Your task to perform on an android device: turn off location Image 0: 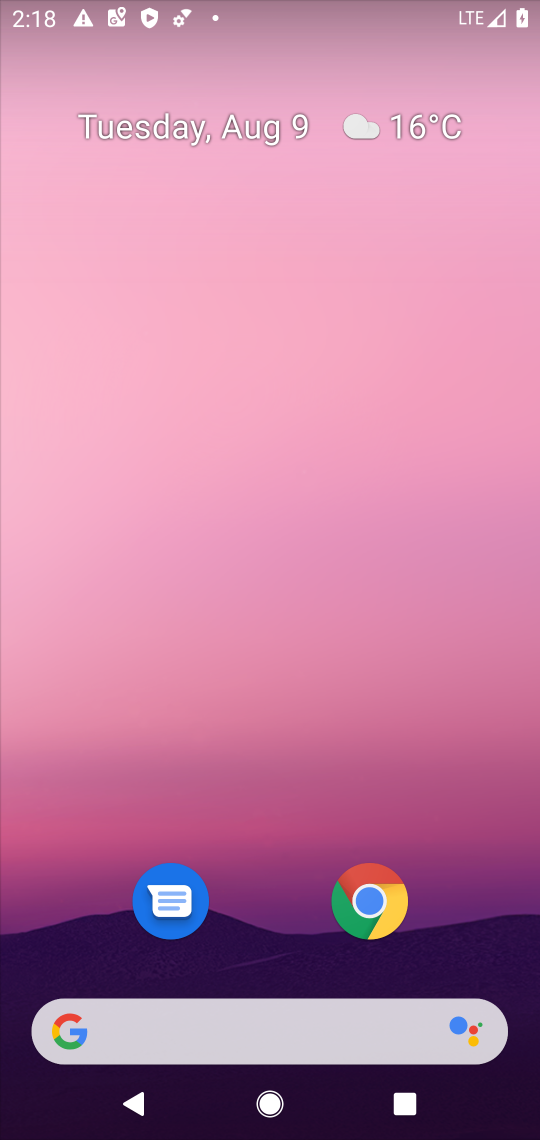
Step 0: drag from (494, 946) to (431, 197)
Your task to perform on an android device: turn off location Image 1: 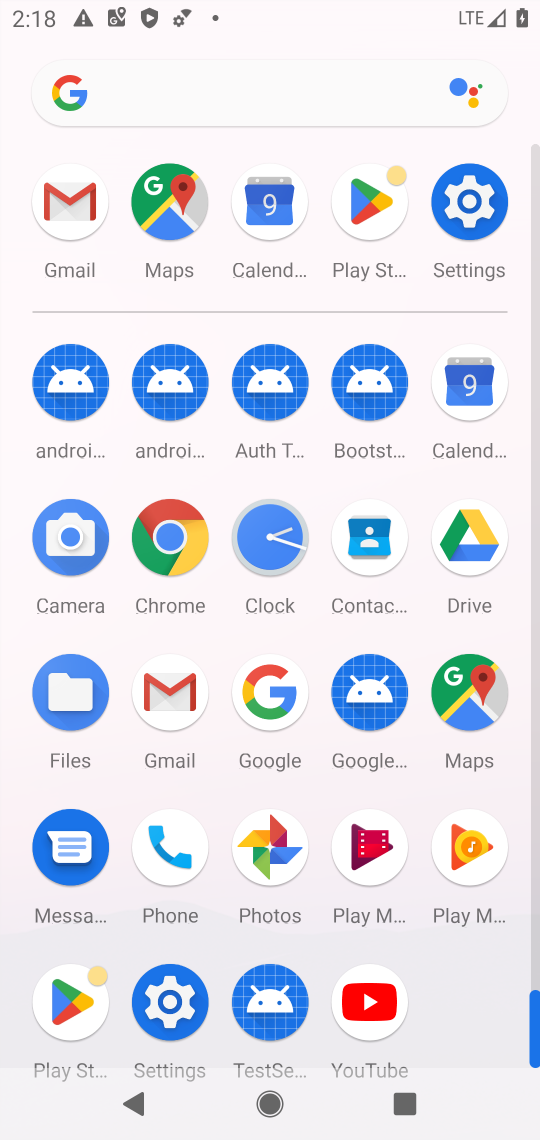
Step 1: click (171, 1000)
Your task to perform on an android device: turn off location Image 2: 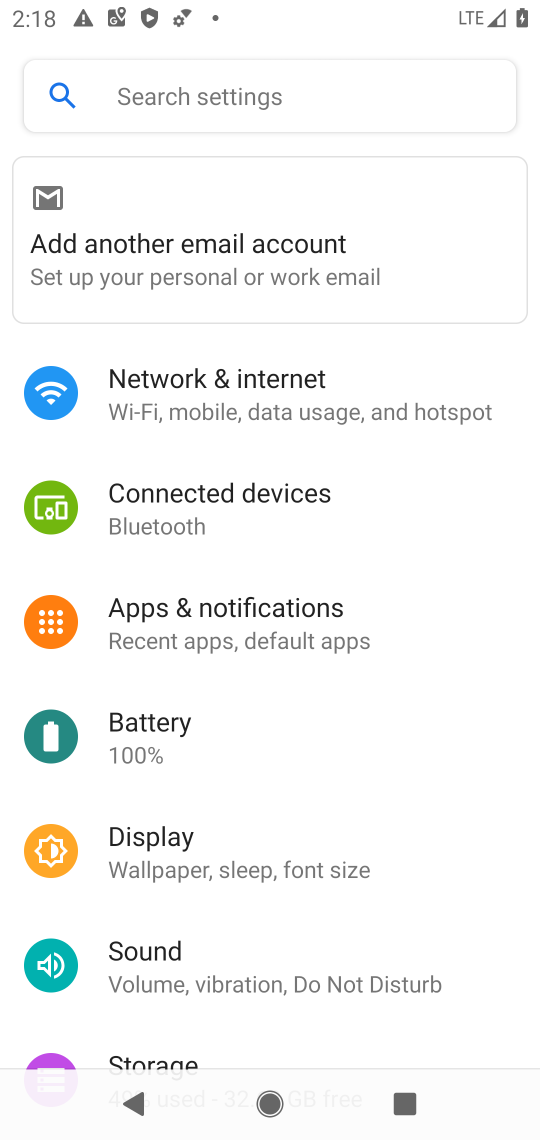
Step 2: drag from (428, 922) to (386, 375)
Your task to perform on an android device: turn off location Image 3: 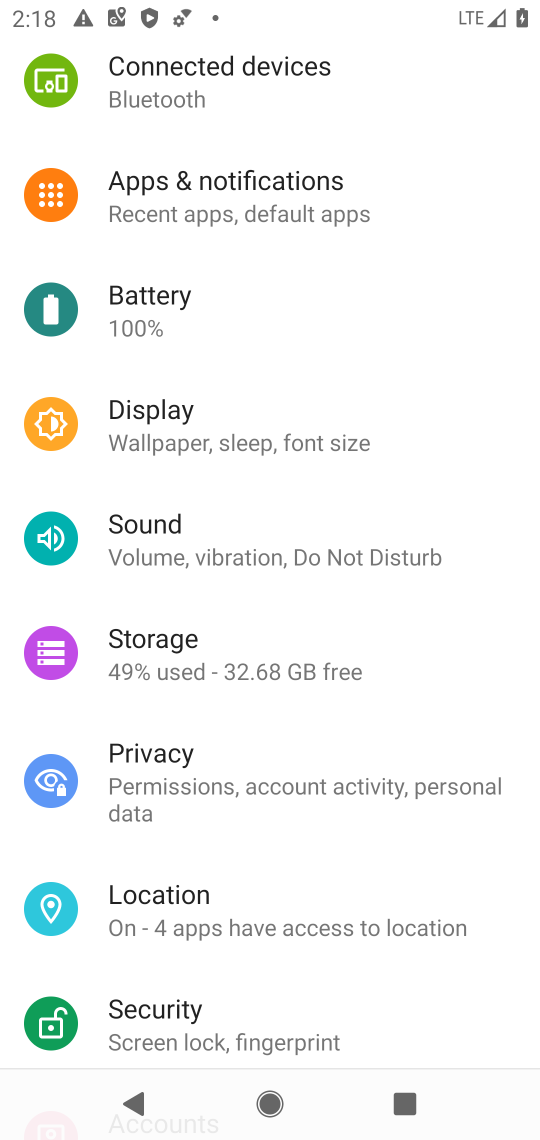
Step 3: click (165, 900)
Your task to perform on an android device: turn off location Image 4: 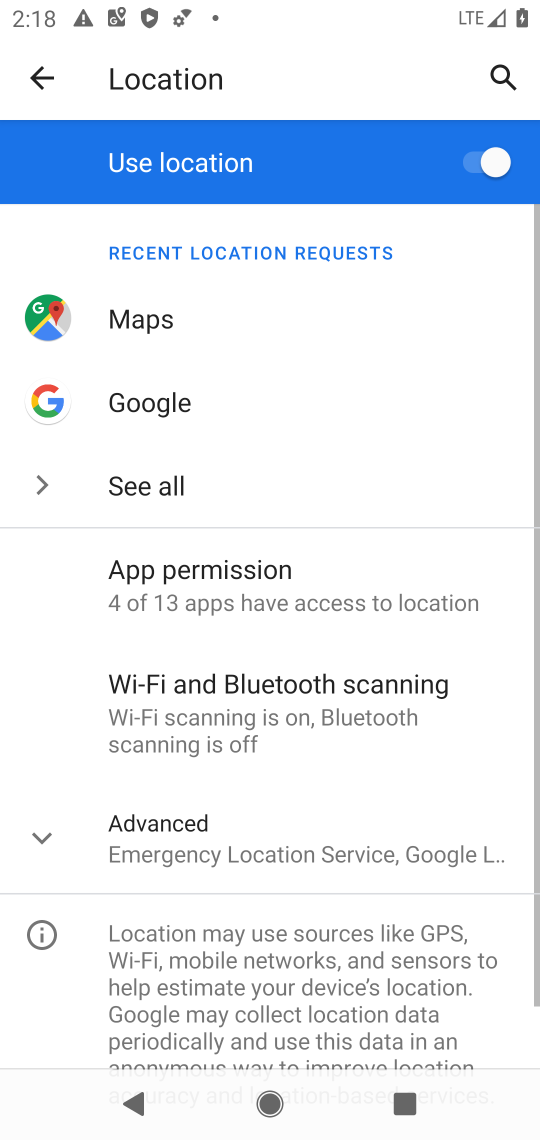
Step 4: click (471, 162)
Your task to perform on an android device: turn off location Image 5: 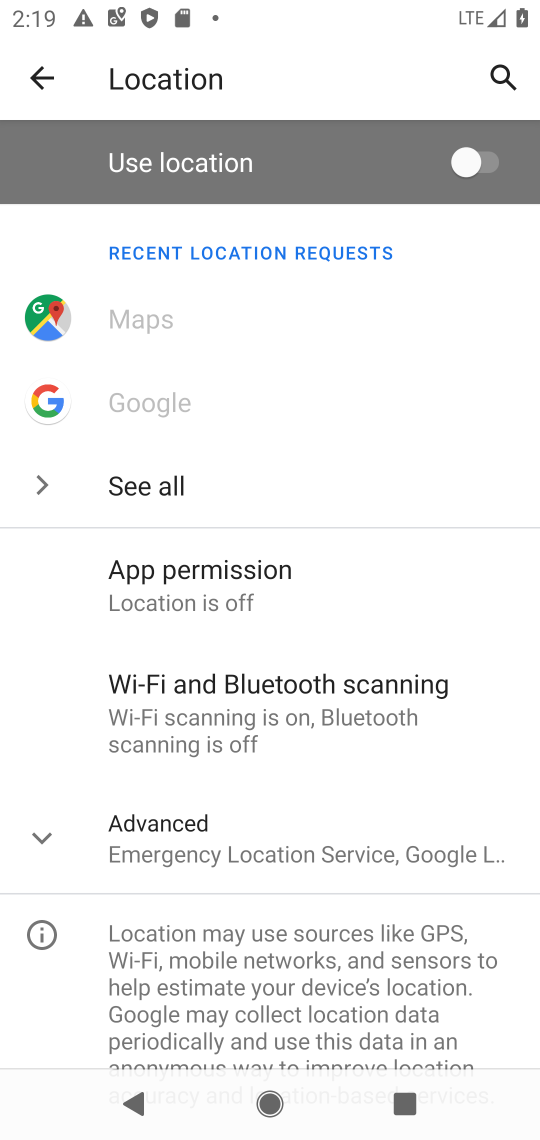
Step 5: task complete